Your task to perform on an android device: What's on my calendar tomorrow? Image 0: 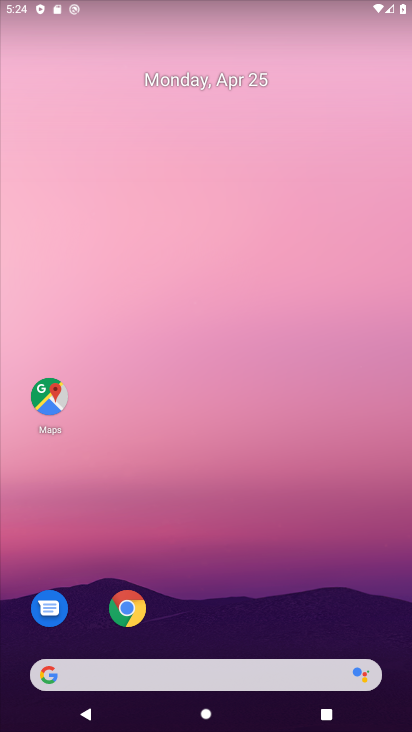
Step 0: drag from (205, 545) to (177, 40)
Your task to perform on an android device: What's on my calendar tomorrow? Image 1: 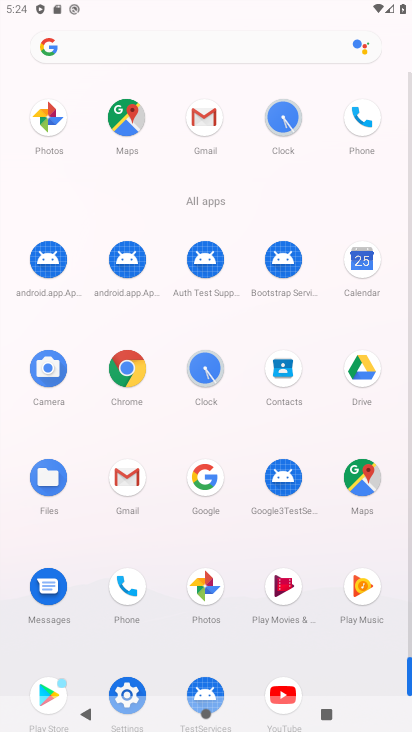
Step 1: drag from (6, 542) to (11, 253)
Your task to perform on an android device: What's on my calendar tomorrow? Image 2: 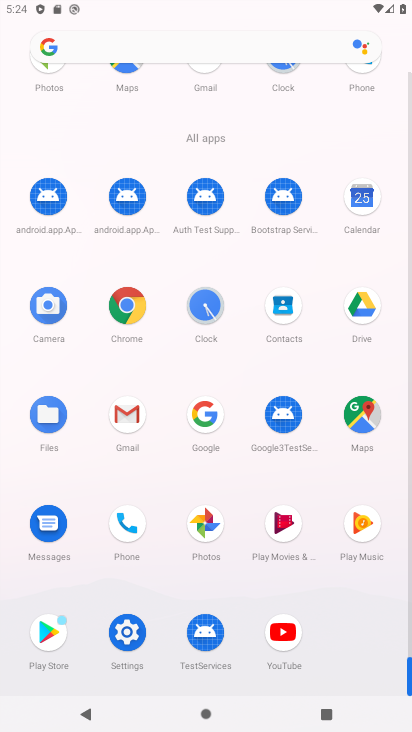
Step 2: drag from (1, 419) to (10, 246)
Your task to perform on an android device: What's on my calendar tomorrow? Image 3: 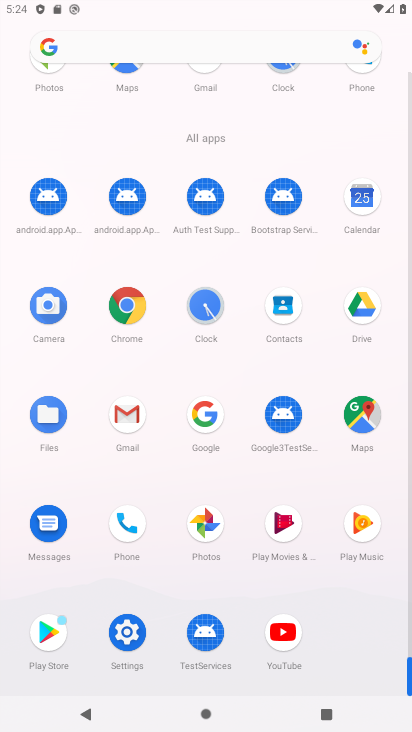
Step 3: click (360, 196)
Your task to perform on an android device: What's on my calendar tomorrow? Image 4: 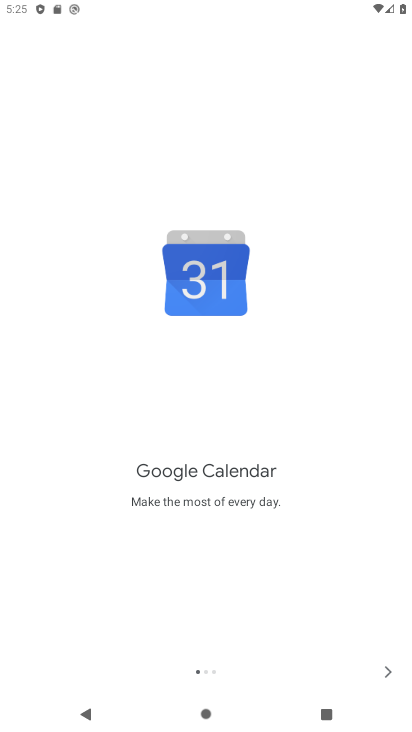
Step 4: click (382, 679)
Your task to perform on an android device: What's on my calendar tomorrow? Image 5: 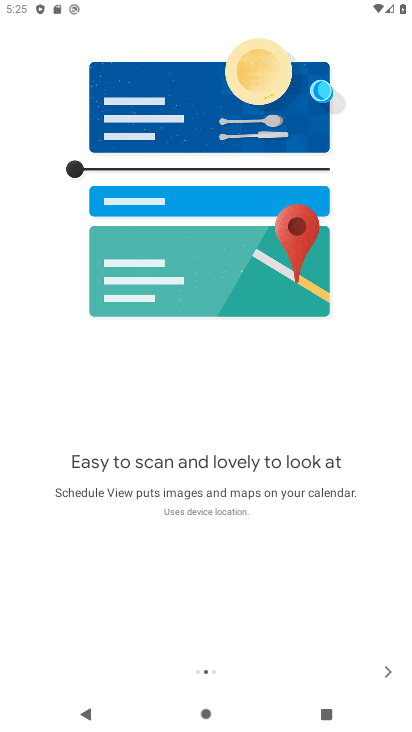
Step 5: click (382, 679)
Your task to perform on an android device: What's on my calendar tomorrow? Image 6: 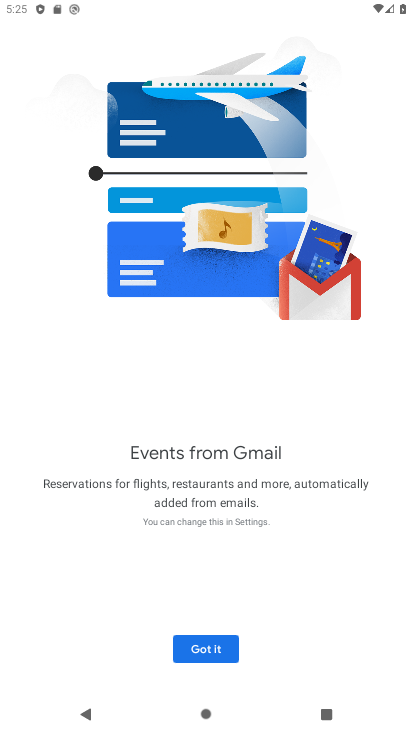
Step 6: click (200, 640)
Your task to perform on an android device: What's on my calendar tomorrow? Image 7: 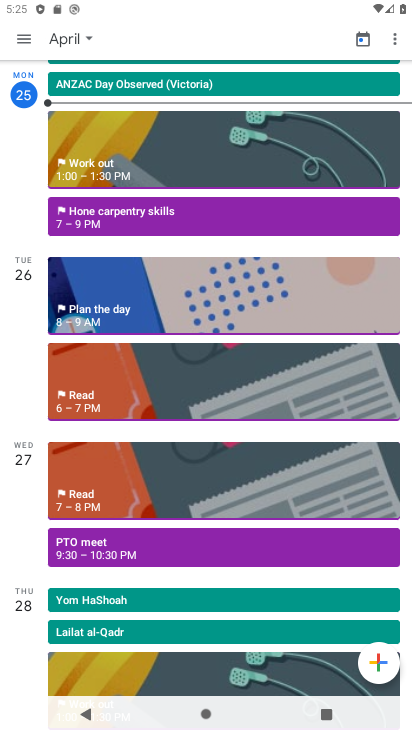
Step 7: click (52, 35)
Your task to perform on an android device: What's on my calendar tomorrow? Image 8: 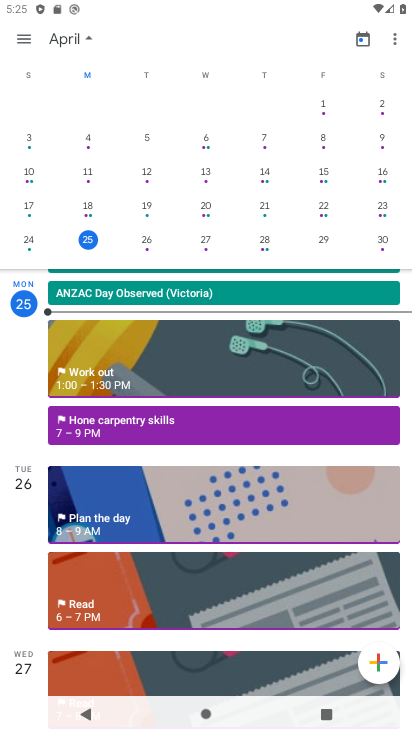
Step 8: click (137, 239)
Your task to perform on an android device: What's on my calendar tomorrow? Image 9: 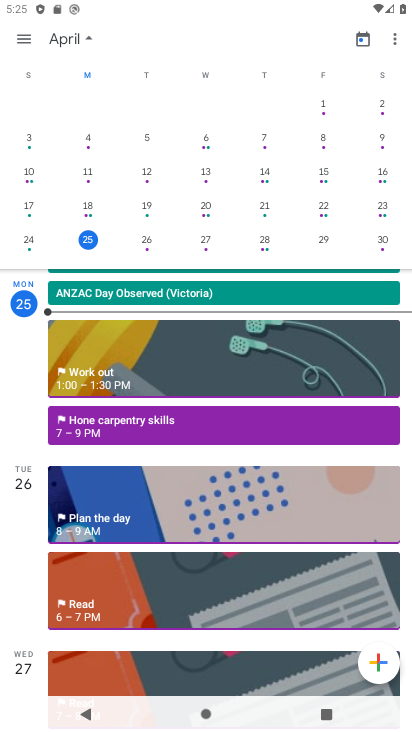
Step 9: click (137, 239)
Your task to perform on an android device: What's on my calendar tomorrow? Image 10: 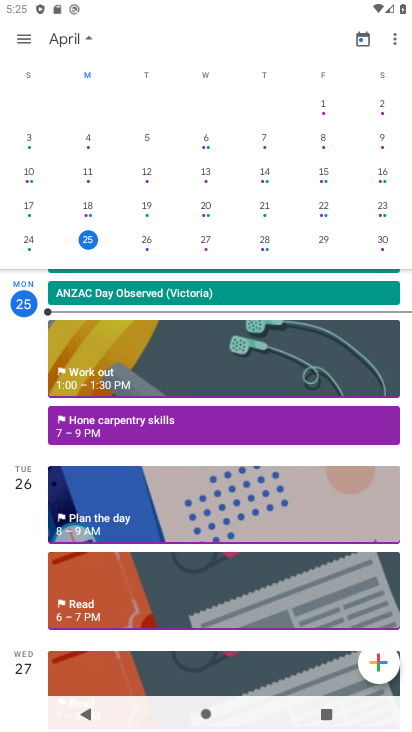
Step 10: click (150, 239)
Your task to perform on an android device: What's on my calendar tomorrow? Image 11: 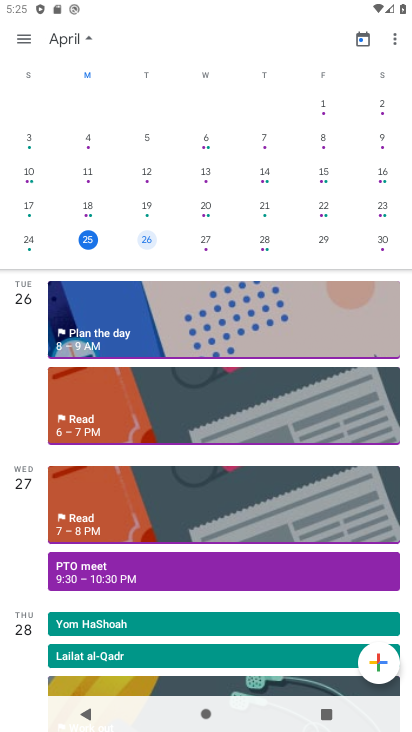
Step 11: click (33, 39)
Your task to perform on an android device: What's on my calendar tomorrow? Image 12: 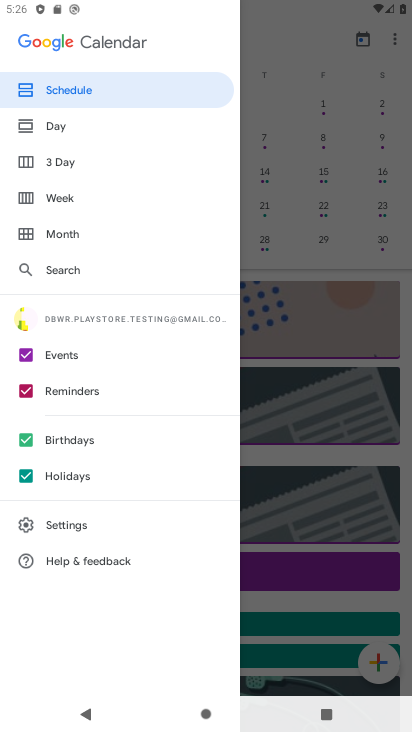
Step 12: click (86, 121)
Your task to perform on an android device: What's on my calendar tomorrow? Image 13: 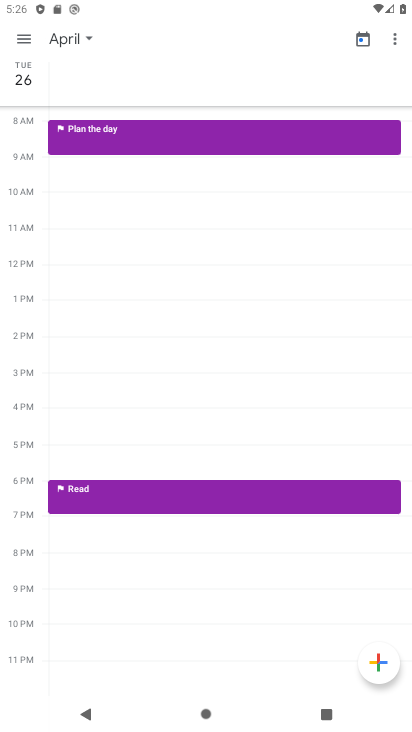
Step 13: task complete